Your task to perform on an android device: turn on location history Image 0: 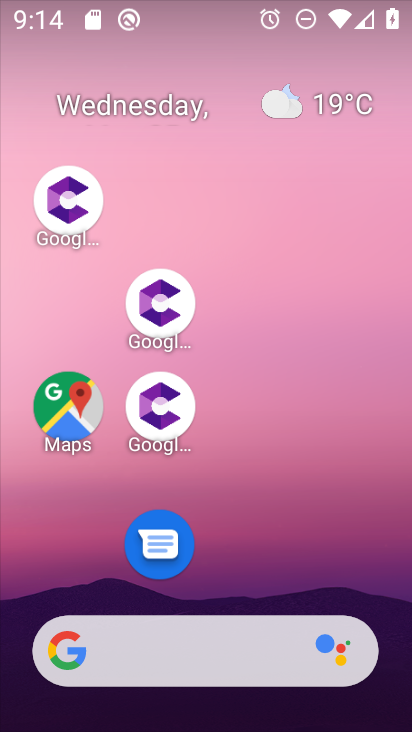
Step 0: drag from (288, 570) to (229, 142)
Your task to perform on an android device: turn on location history Image 1: 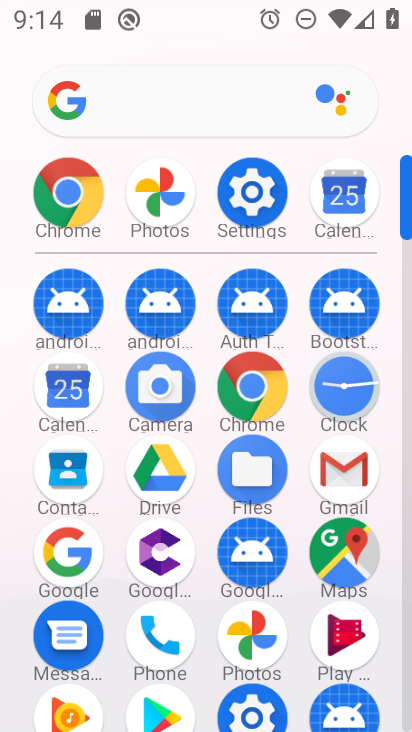
Step 1: click (334, 533)
Your task to perform on an android device: turn on location history Image 2: 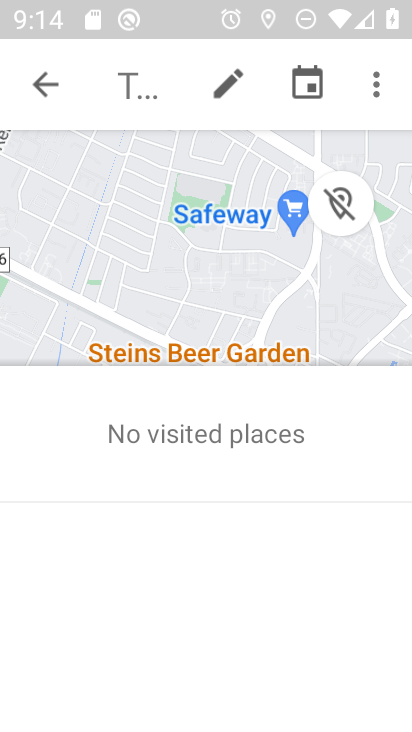
Step 2: click (372, 78)
Your task to perform on an android device: turn on location history Image 3: 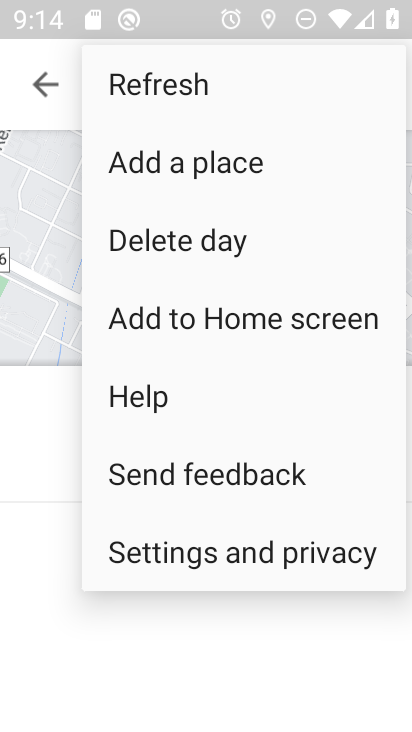
Step 3: click (182, 544)
Your task to perform on an android device: turn on location history Image 4: 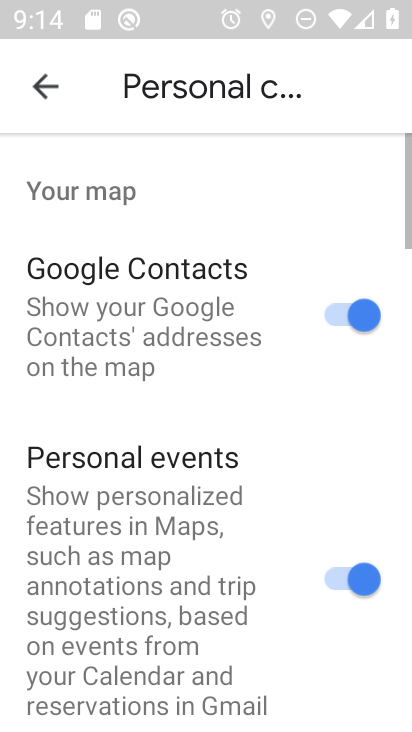
Step 4: drag from (248, 526) to (221, 62)
Your task to perform on an android device: turn on location history Image 5: 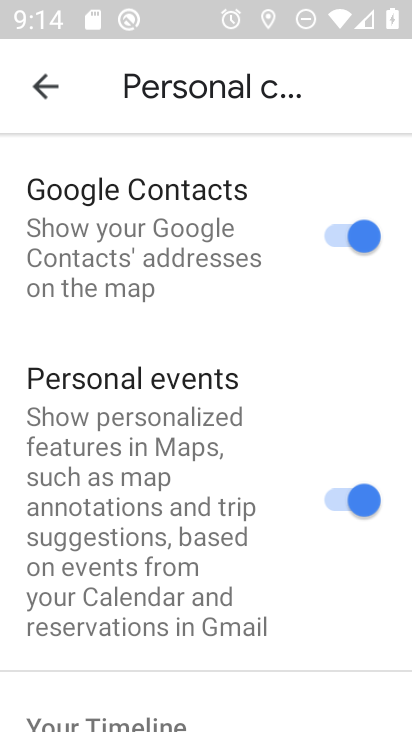
Step 5: drag from (226, 524) to (221, 177)
Your task to perform on an android device: turn on location history Image 6: 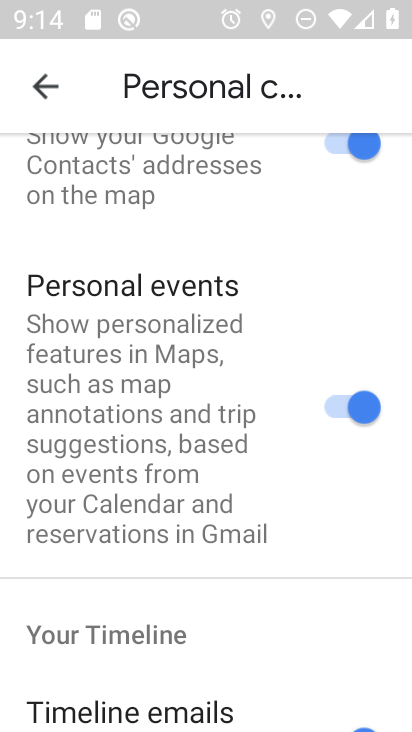
Step 6: drag from (255, 633) to (239, 251)
Your task to perform on an android device: turn on location history Image 7: 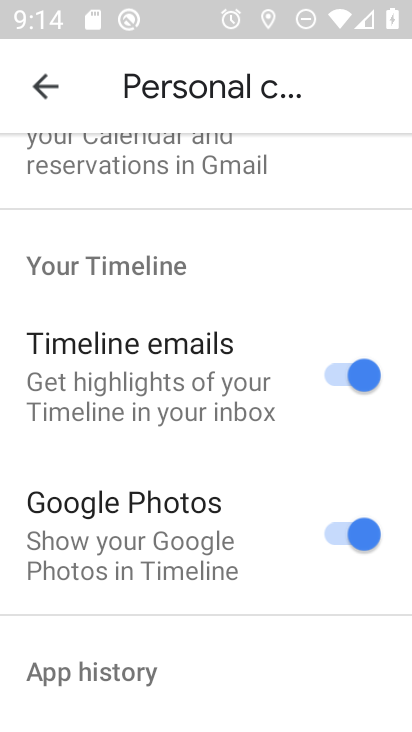
Step 7: drag from (248, 562) to (245, 237)
Your task to perform on an android device: turn on location history Image 8: 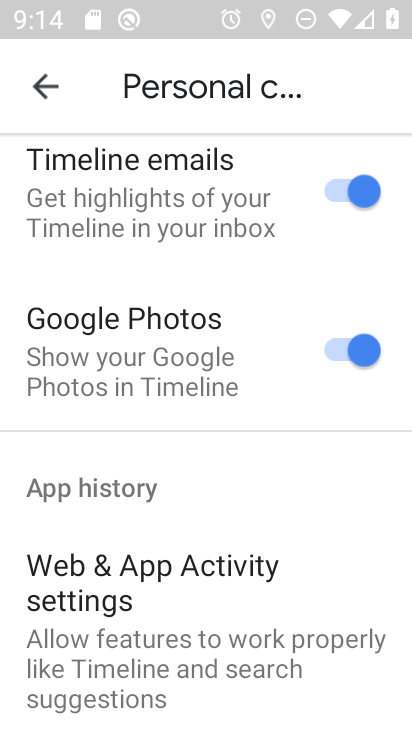
Step 8: drag from (249, 614) to (245, 272)
Your task to perform on an android device: turn on location history Image 9: 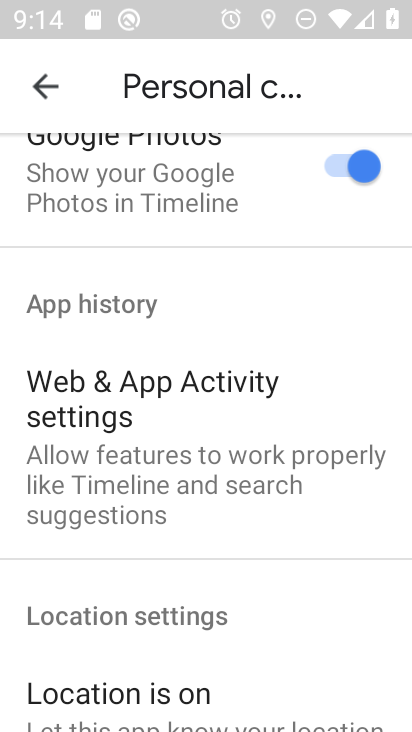
Step 9: drag from (205, 614) to (205, 483)
Your task to perform on an android device: turn on location history Image 10: 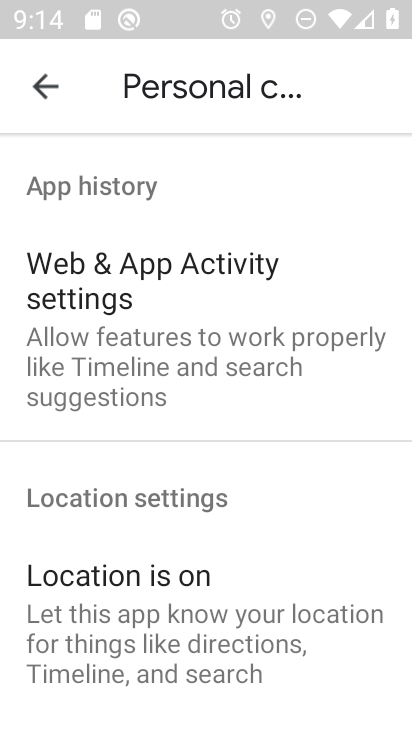
Step 10: drag from (215, 605) to (217, 284)
Your task to perform on an android device: turn on location history Image 11: 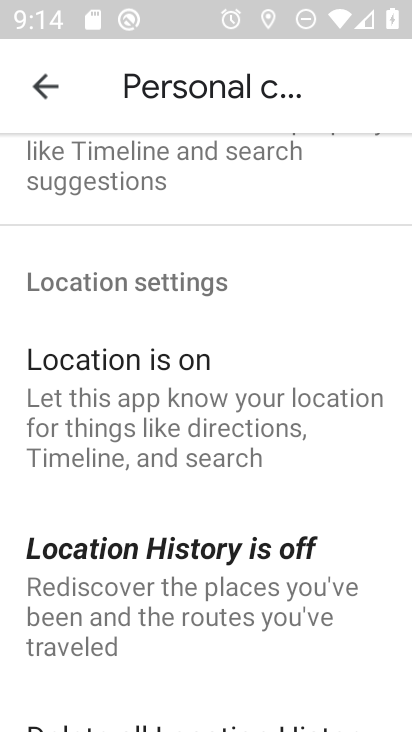
Step 11: click (185, 528)
Your task to perform on an android device: turn on location history Image 12: 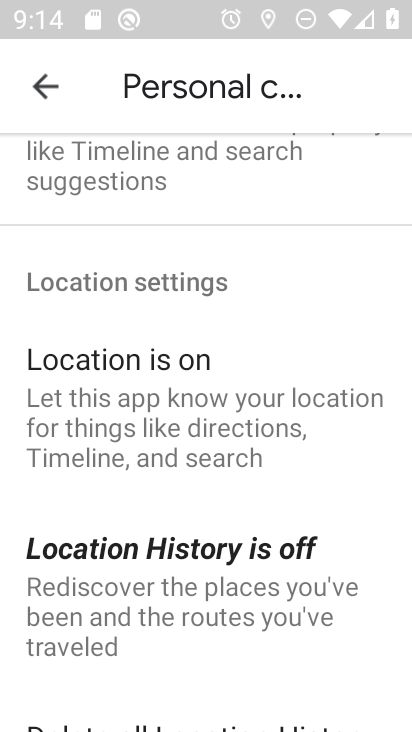
Step 12: click (185, 528)
Your task to perform on an android device: turn on location history Image 13: 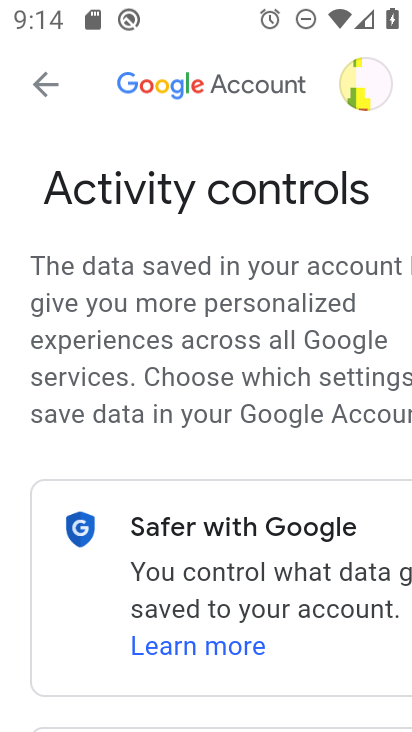
Step 13: drag from (292, 533) to (190, 118)
Your task to perform on an android device: turn on location history Image 14: 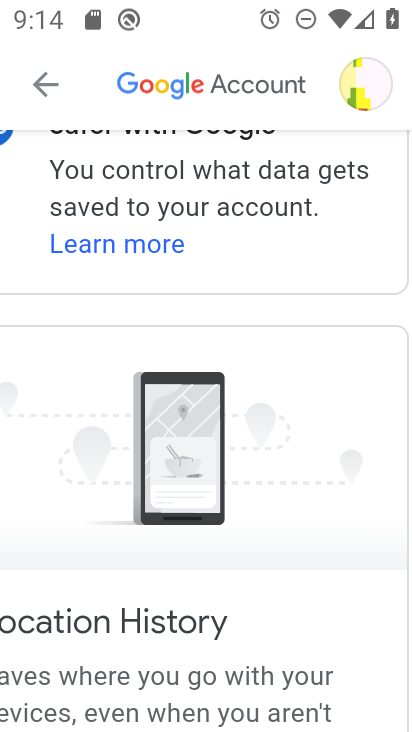
Step 14: drag from (253, 578) to (253, 324)
Your task to perform on an android device: turn on location history Image 15: 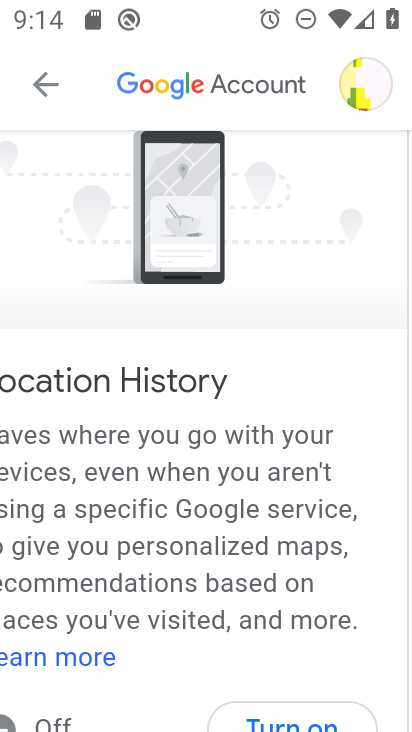
Step 15: drag from (292, 636) to (292, 358)
Your task to perform on an android device: turn on location history Image 16: 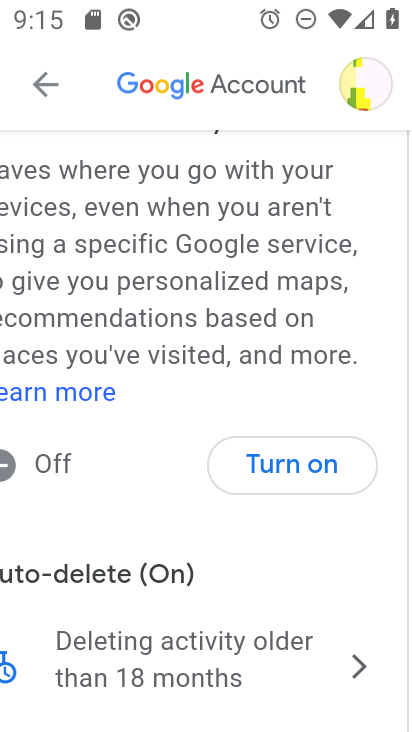
Step 16: click (262, 466)
Your task to perform on an android device: turn on location history Image 17: 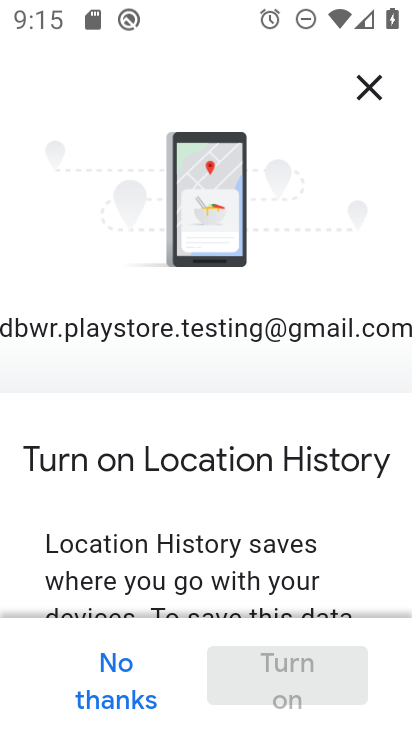
Step 17: drag from (300, 517) to (304, 91)
Your task to perform on an android device: turn on location history Image 18: 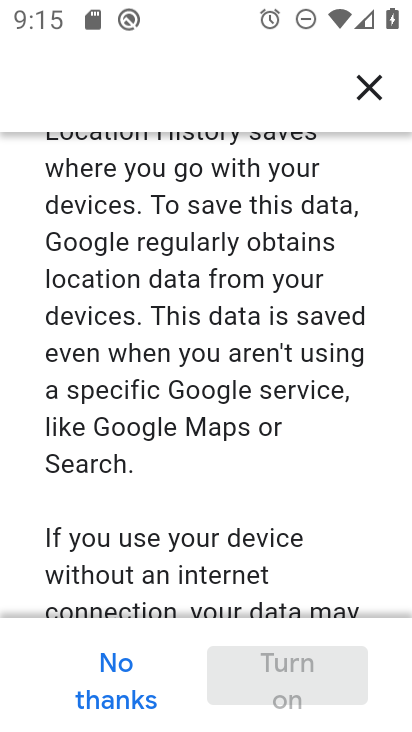
Step 18: drag from (310, 541) to (294, 274)
Your task to perform on an android device: turn on location history Image 19: 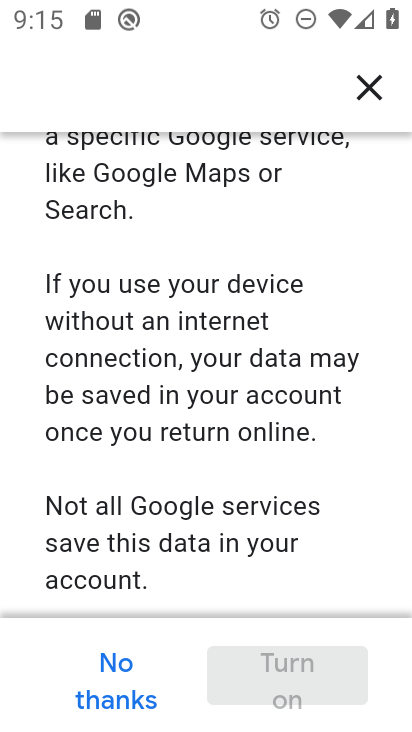
Step 19: drag from (277, 574) to (277, 145)
Your task to perform on an android device: turn on location history Image 20: 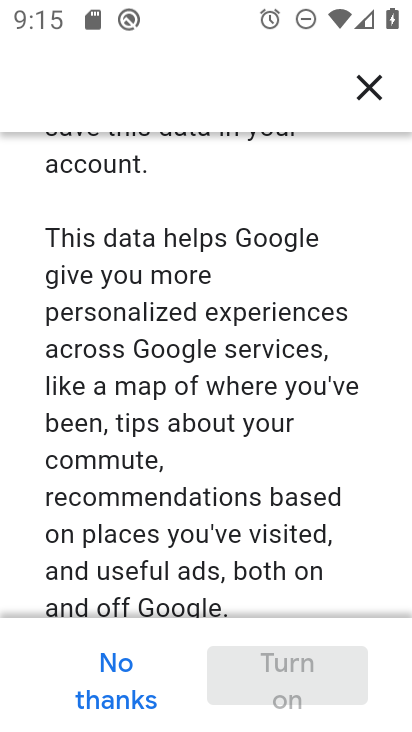
Step 20: drag from (243, 493) to (219, 99)
Your task to perform on an android device: turn on location history Image 21: 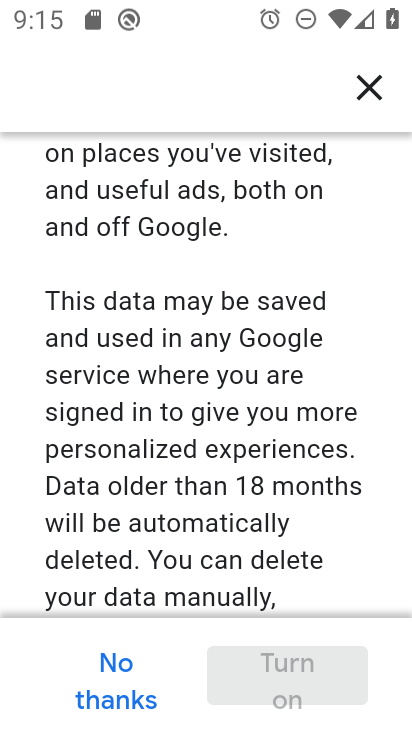
Step 21: drag from (248, 566) to (225, 253)
Your task to perform on an android device: turn on location history Image 22: 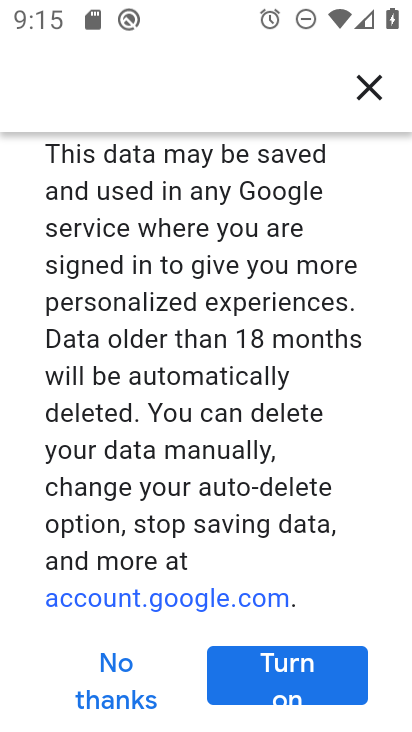
Step 22: click (281, 673)
Your task to perform on an android device: turn on location history Image 23: 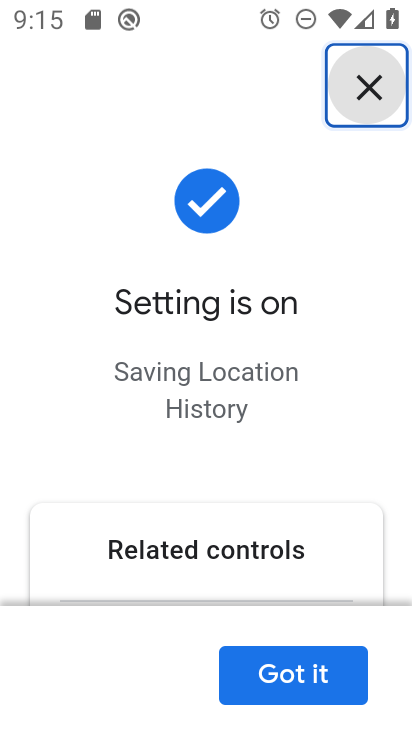
Step 23: click (271, 660)
Your task to perform on an android device: turn on location history Image 24: 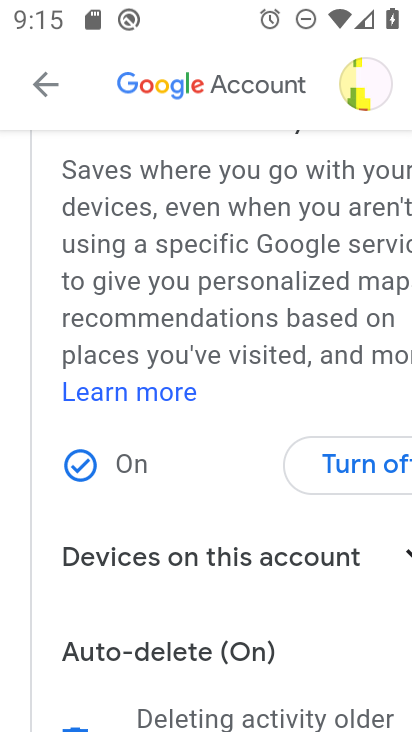
Step 24: task complete